Your task to perform on an android device: Open display settings Image 0: 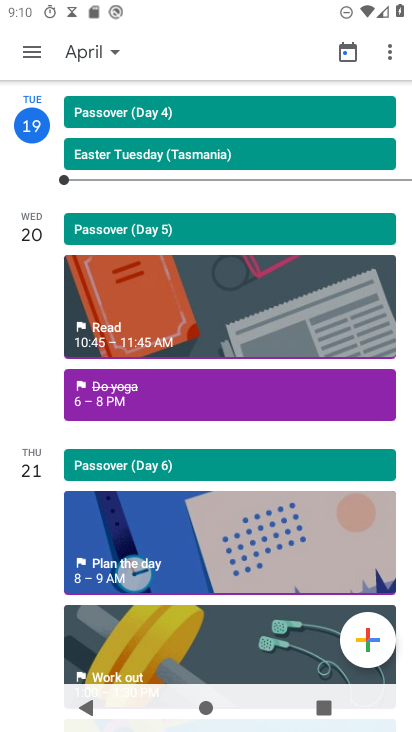
Step 0: press home button
Your task to perform on an android device: Open display settings Image 1: 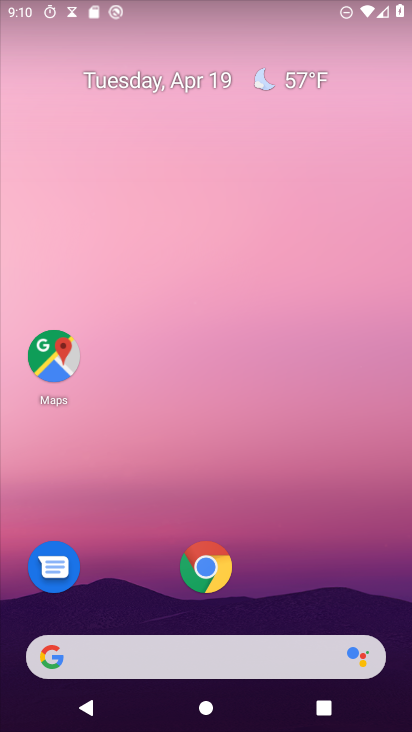
Step 1: drag from (352, 458) to (408, 69)
Your task to perform on an android device: Open display settings Image 2: 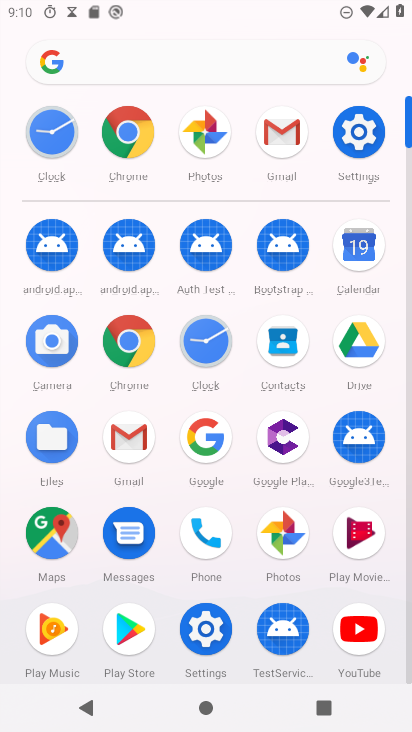
Step 2: click (373, 128)
Your task to perform on an android device: Open display settings Image 3: 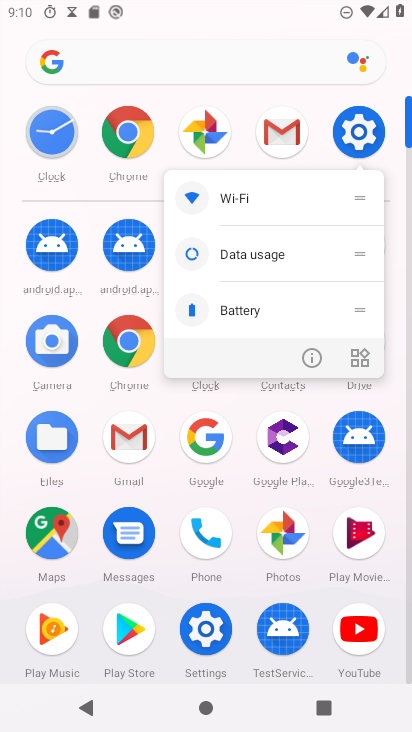
Step 3: click (373, 127)
Your task to perform on an android device: Open display settings Image 4: 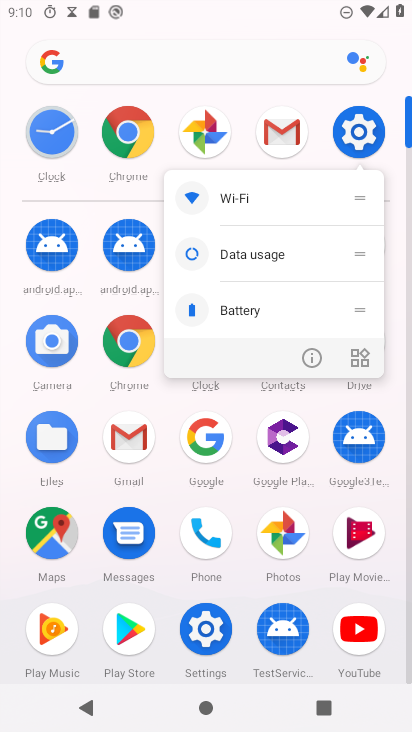
Step 4: click (361, 135)
Your task to perform on an android device: Open display settings Image 5: 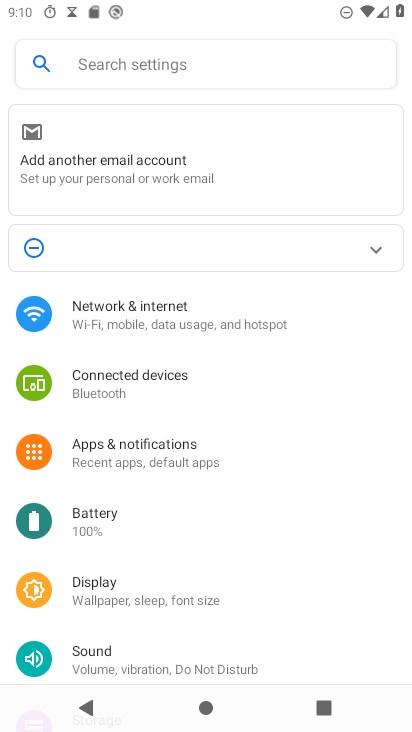
Step 5: drag from (145, 622) to (230, 300)
Your task to perform on an android device: Open display settings Image 6: 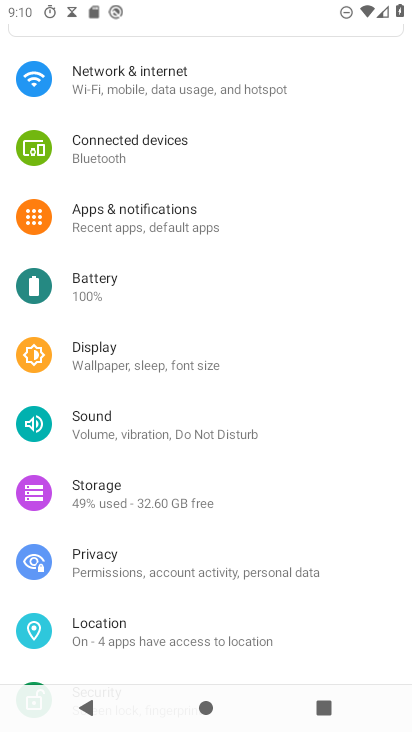
Step 6: click (93, 364)
Your task to perform on an android device: Open display settings Image 7: 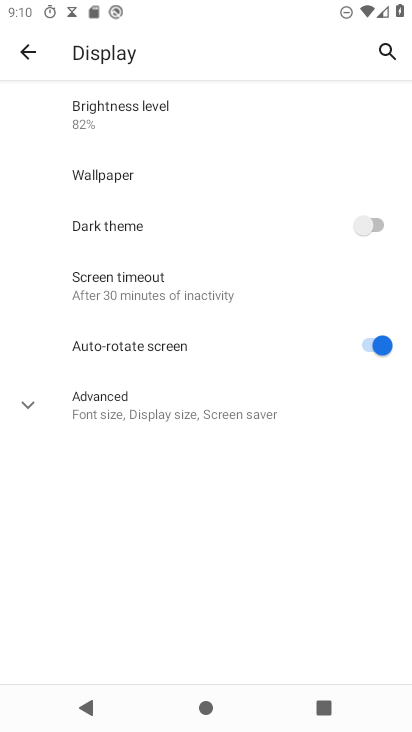
Step 7: task complete